Your task to perform on an android device: Empty the shopping cart on target.com. Add "logitech g pro" to the cart on target.com Image 0: 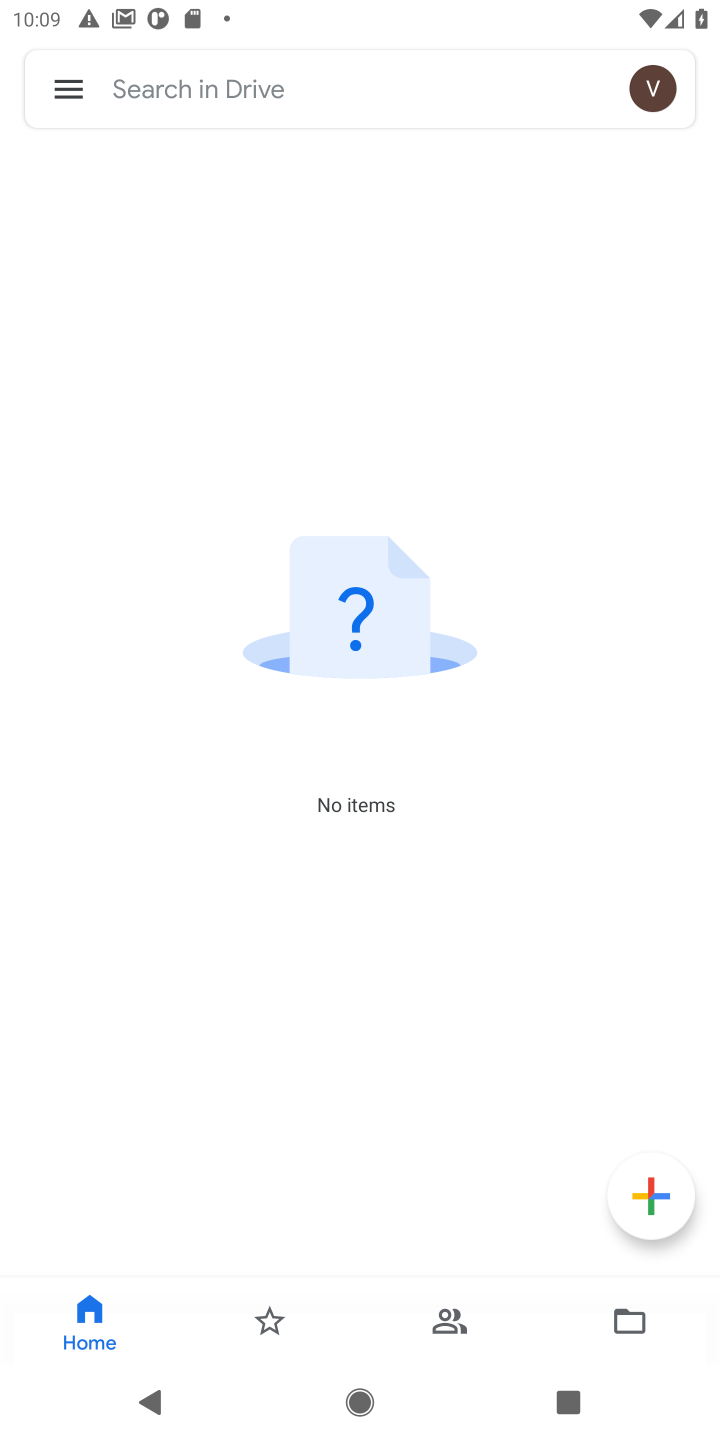
Step 0: press home button
Your task to perform on an android device: Empty the shopping cart on target.com. Add "logitech g pro" to the cart on target.com Image 1: 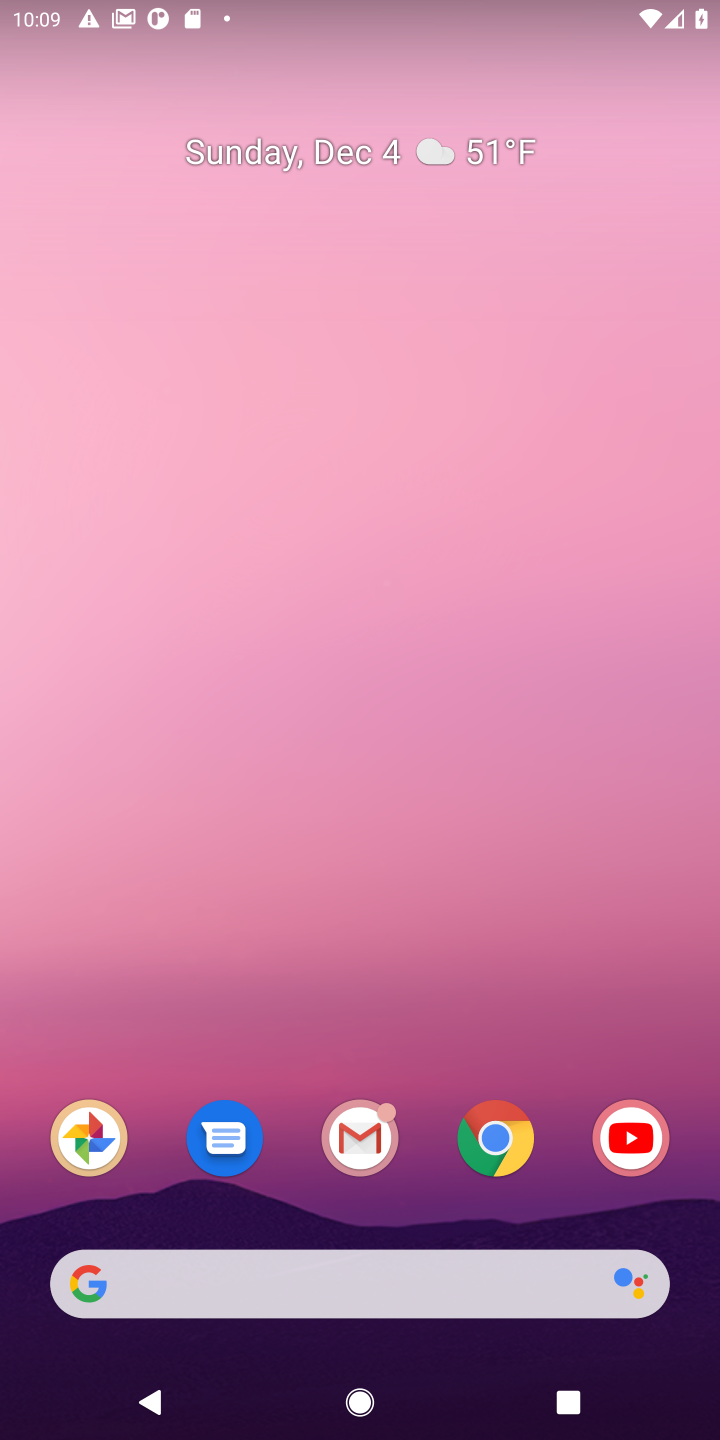
Step 1: click (485, 1137)
Your task to perform on an android device: Empty the shopping cart on target.com. Add "logitech g pro" to the cart on target.com Image 2: 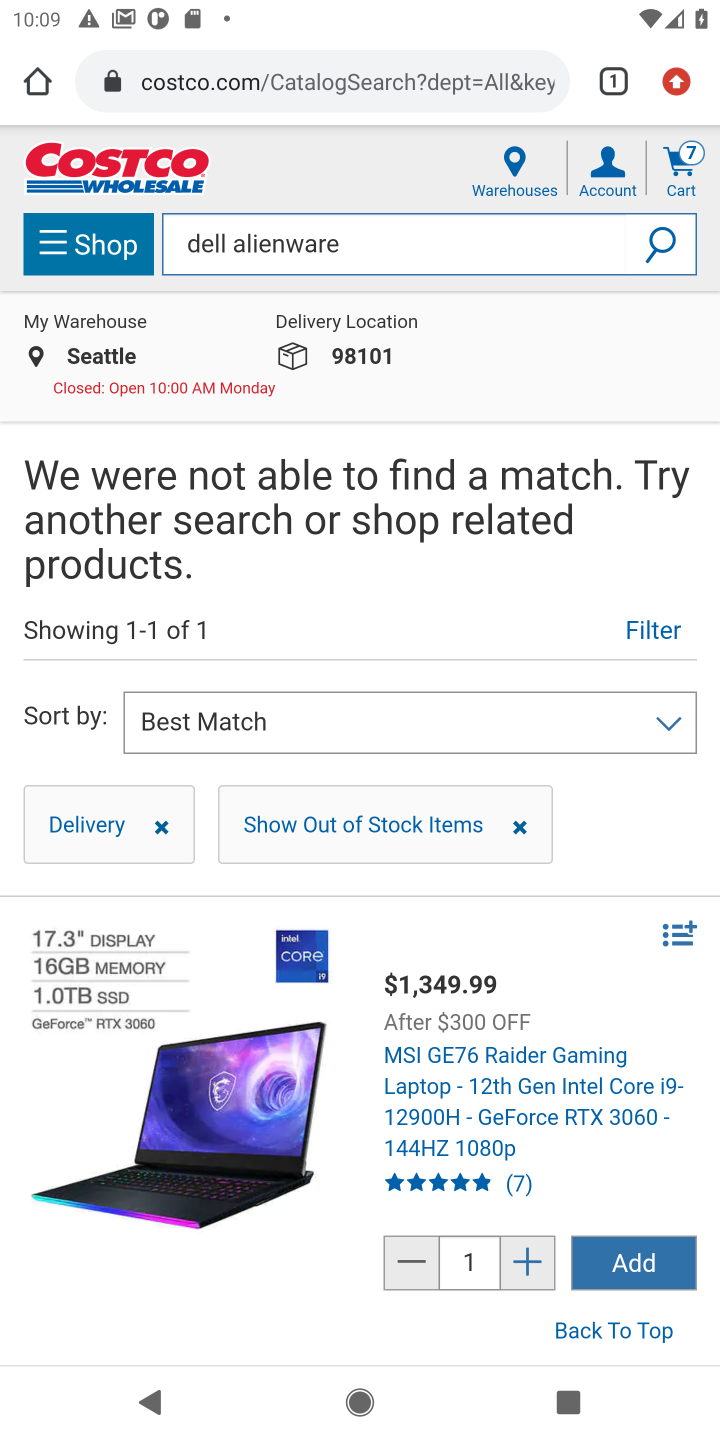
Step 2: click (458, 79)
Your task to perform on an android device: Empty the shopping cart on target.com. Add "logitech g pro" to the cart on target.com Image 3: 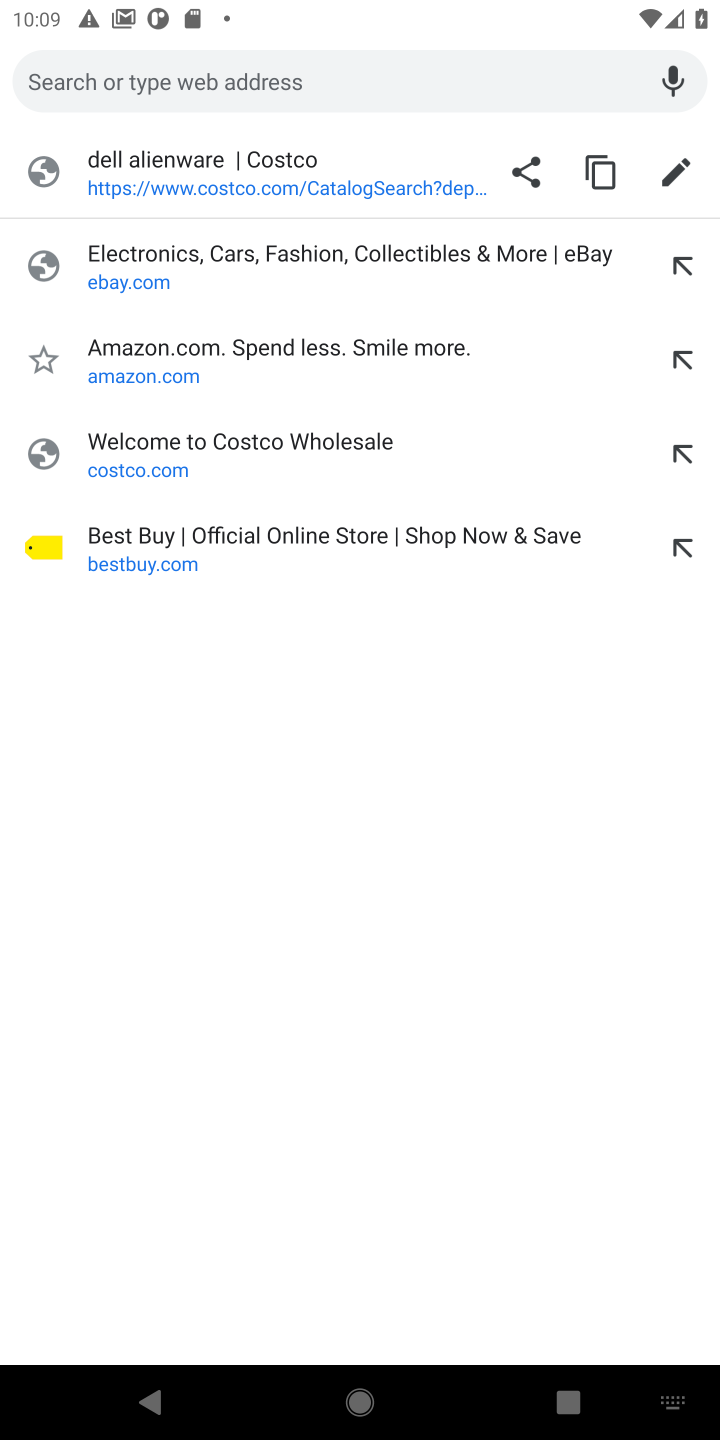
Step 3: type "target.com"
Your task to perform on an android device: Empty the shopping cart on target.com. Add "logitech g pro" to the cart on target.com Image 4: 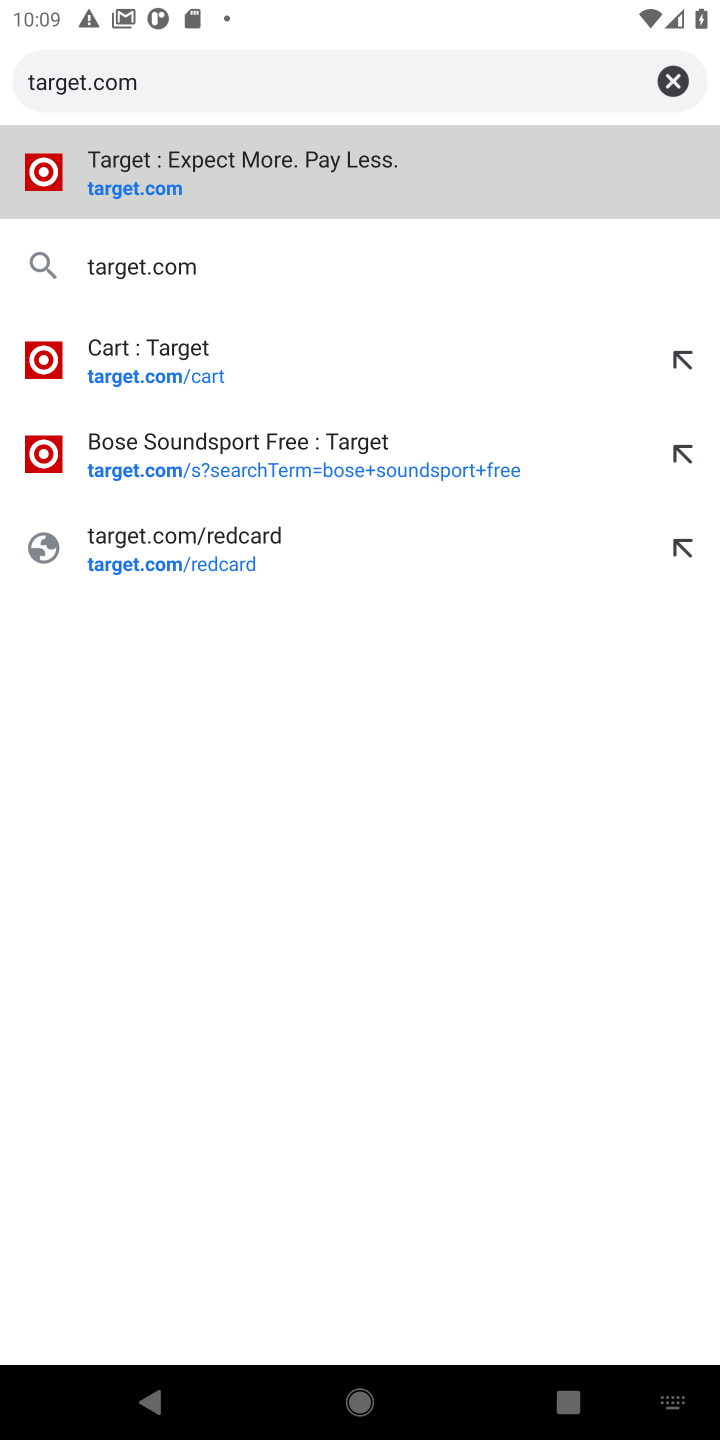
Step 4: press enter
Your task to perform on an android device: Empty the shopping cart on target.com. Add "logitech g pro" to the cart on target.com Image 5: 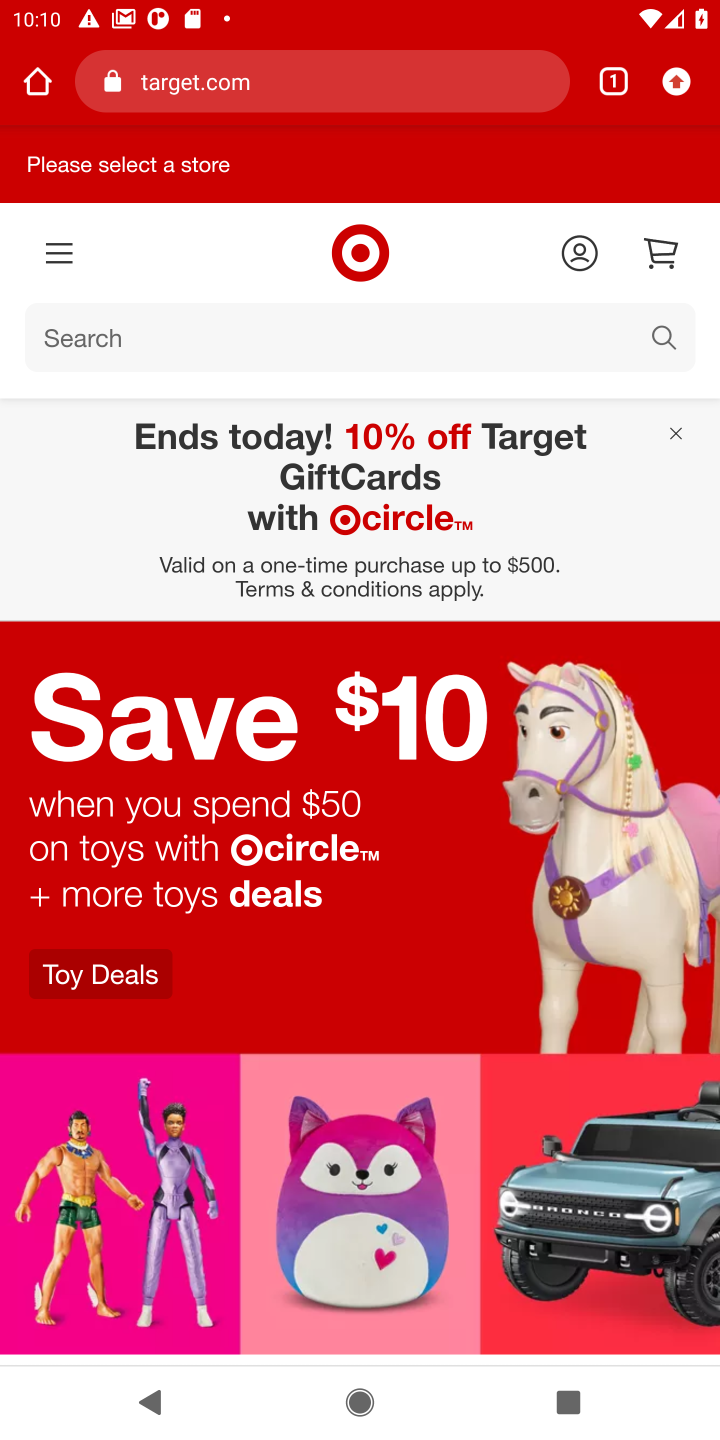
Step 5: click (667, 336)
Your task to perform on an android device: Empty the shopping cart on target.com. Add "logitech g pro" to the cart on target.com Image 6: 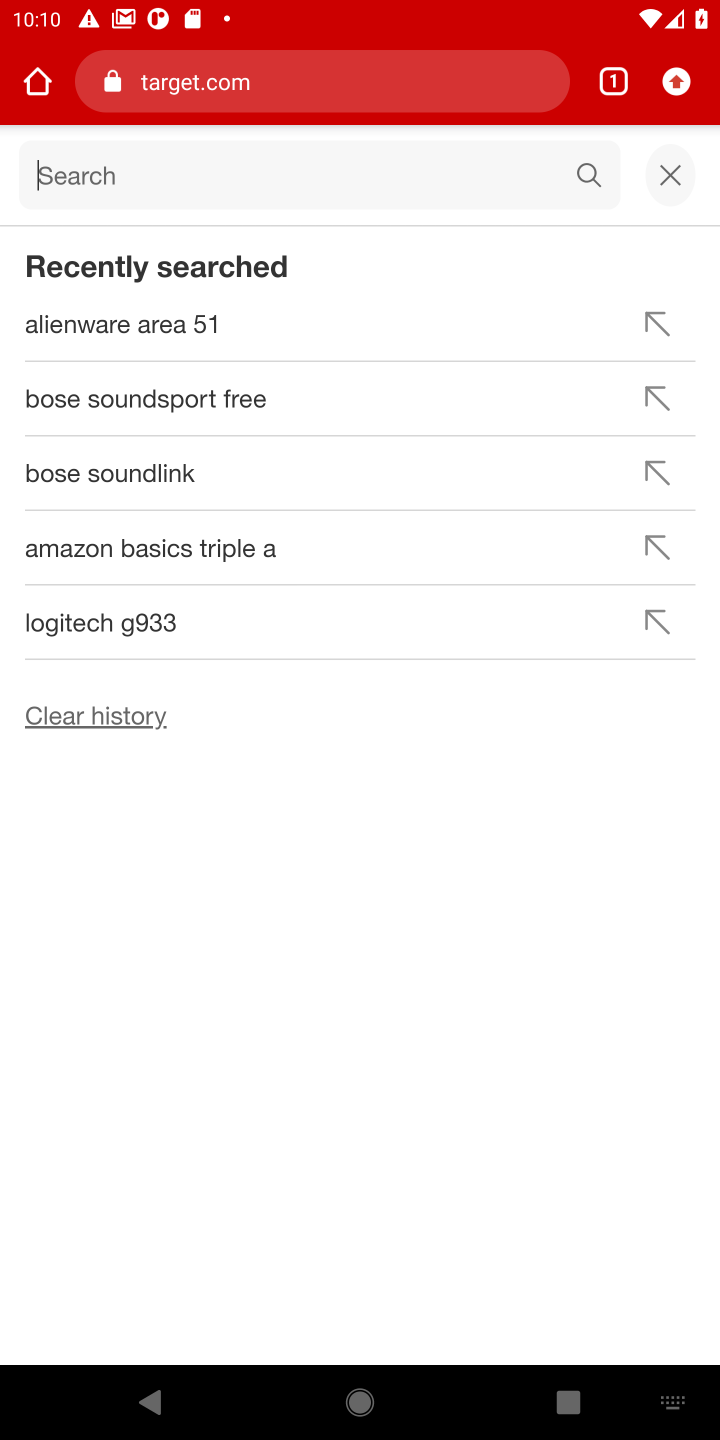
Step 6: press enter
Your task to perform on an android device: Empty the shopping cart on target.com. Add "logitech g pro" to the cart on target.com Image 7: 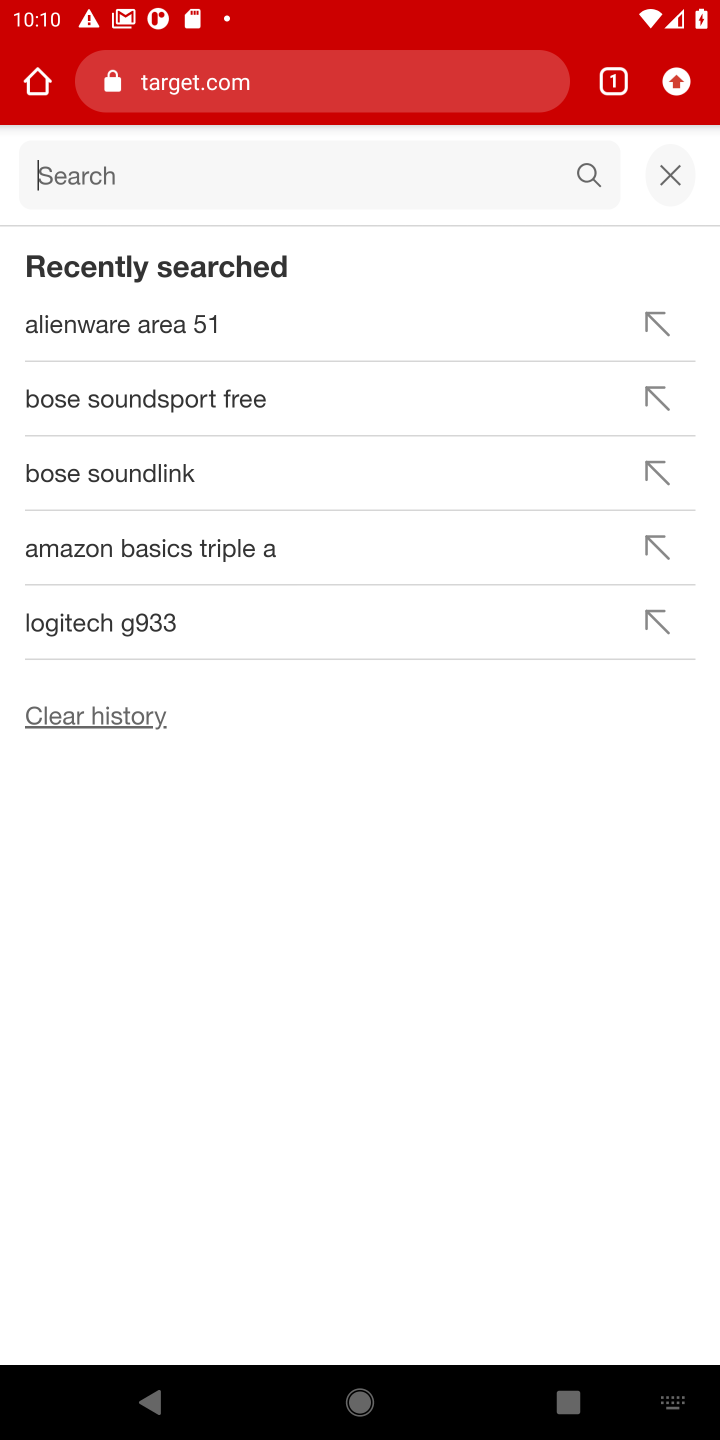
Step 7: type "logitech g pro"
Your task to perform on an android device: Empty the shopping cart on target.com. Add "logitech g pro" to the cart on target.com Image 8: 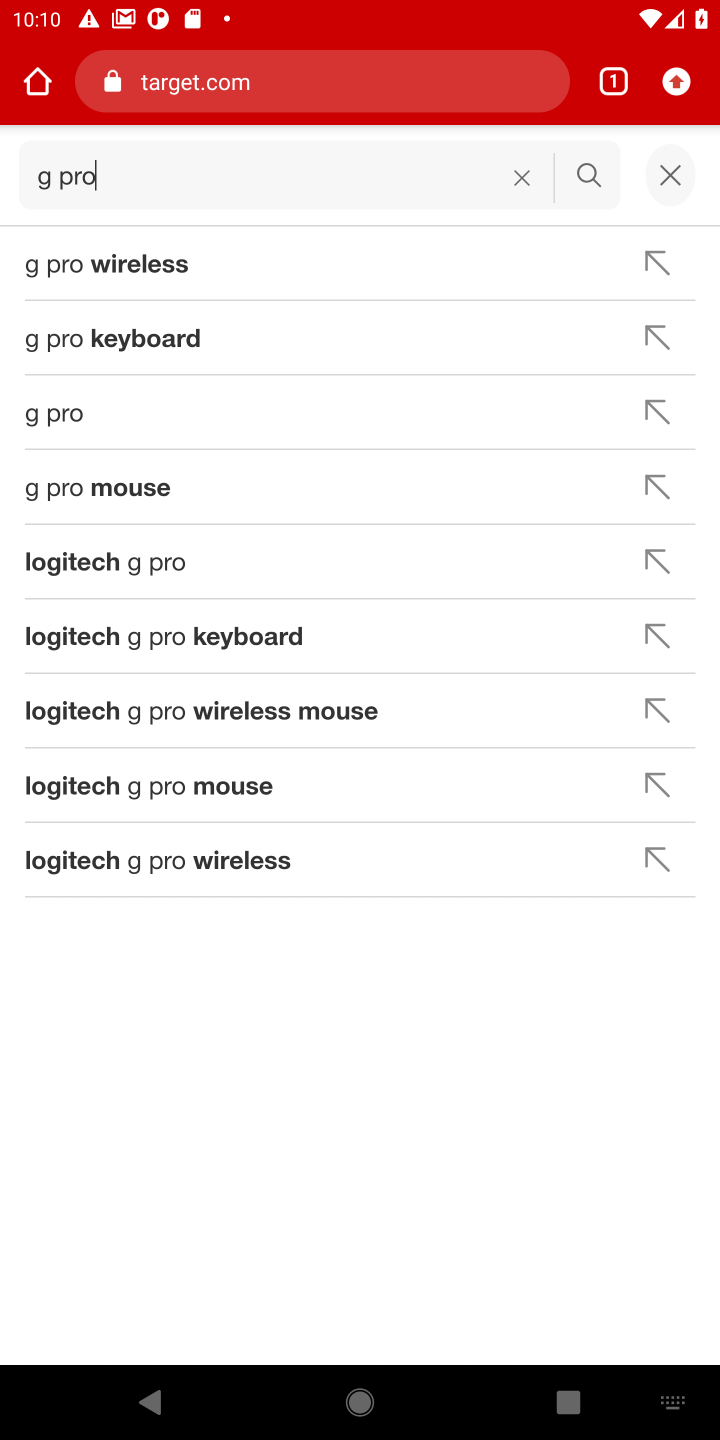
Step 8: click (522, 183)
Your task to perform on an android device: Empty the shopping cart on target.com. Add "logitech g pro" to the cart on target.com Image 9: 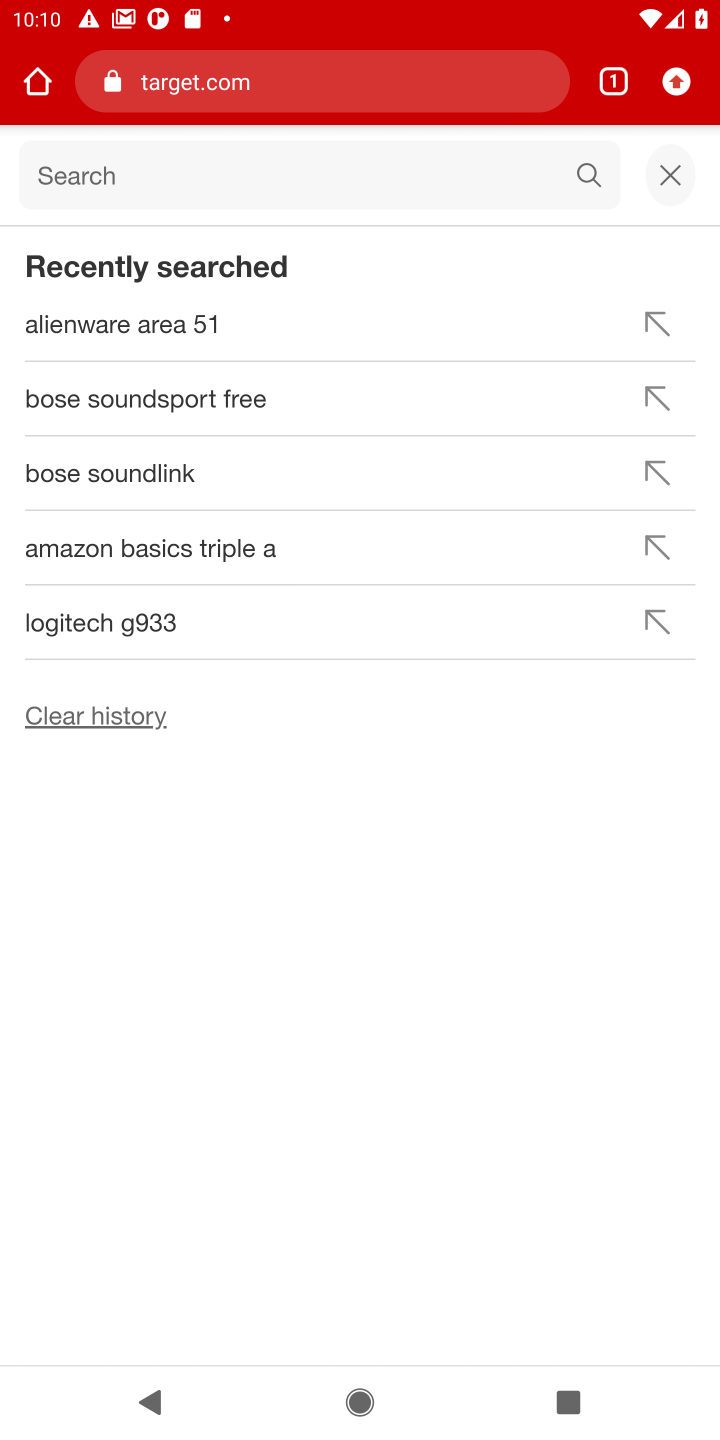
Step 9: click (248, 183)
Your task to perform on an android device: Empty the shopping cart on target.com. Add "logitech g pro" to the cart on target.com Image 10: 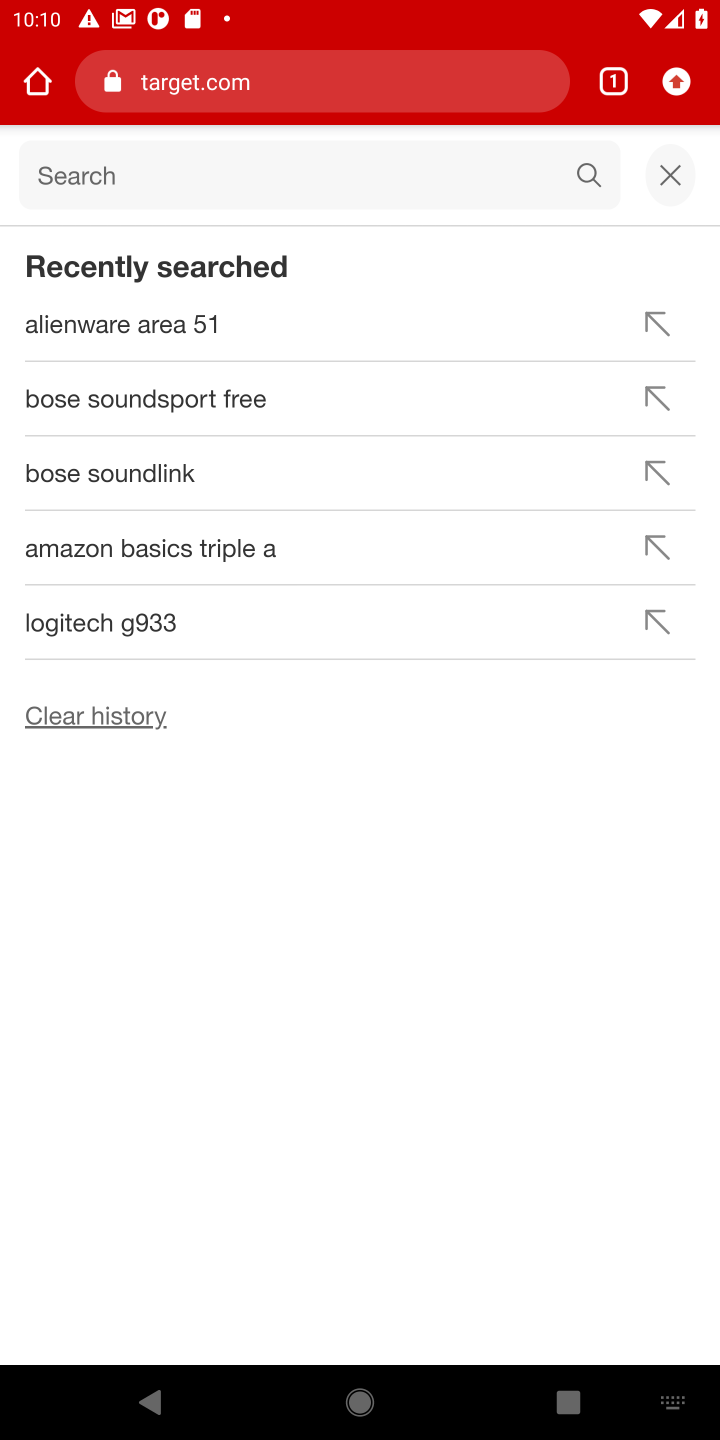
Step 10: type "logitech g pro"
Your task to perform on an android device: Empty the shopping cart on target.com. Add "logitech g pro" to the cart on target.com Image 11: 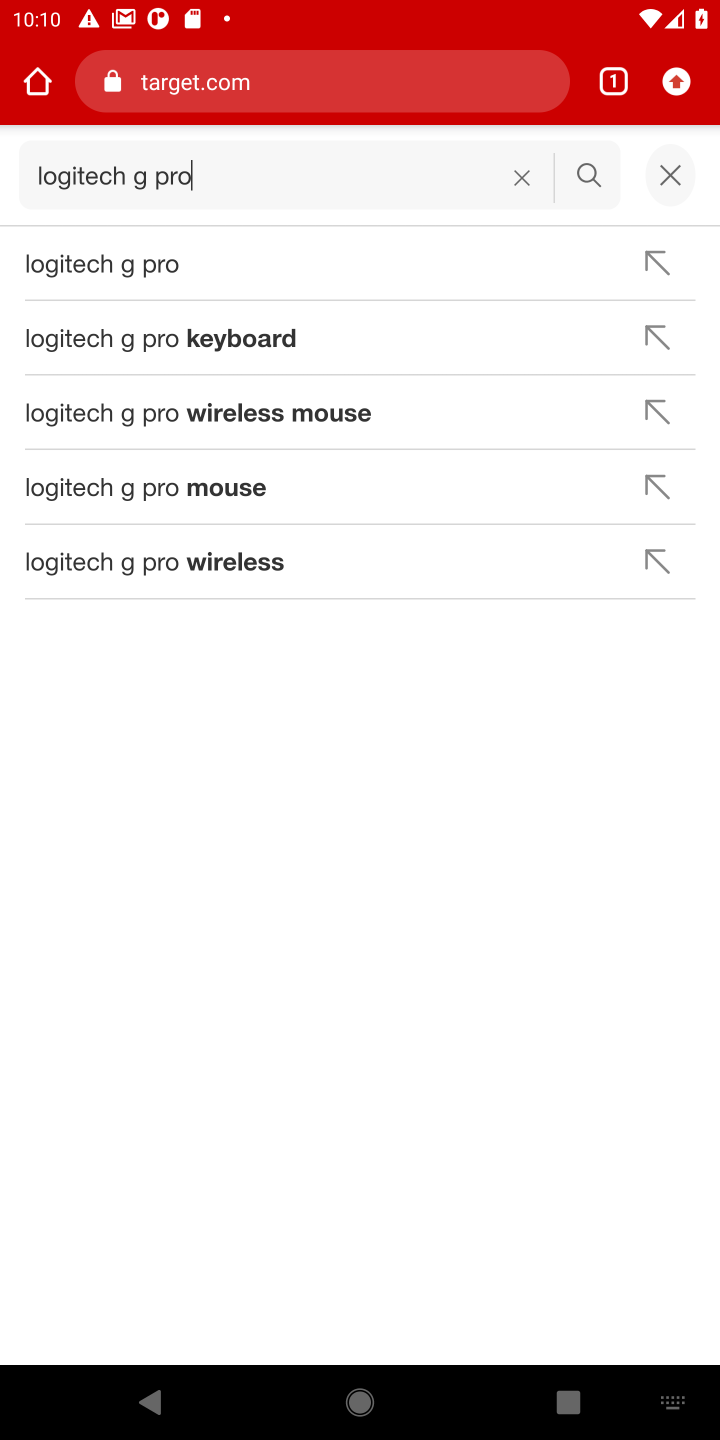
Step 11: press enter
Your task to perform on an android device: Empty the shopping cart on target.com. Add "logitech g pro" to the cart on target.com Image 12: 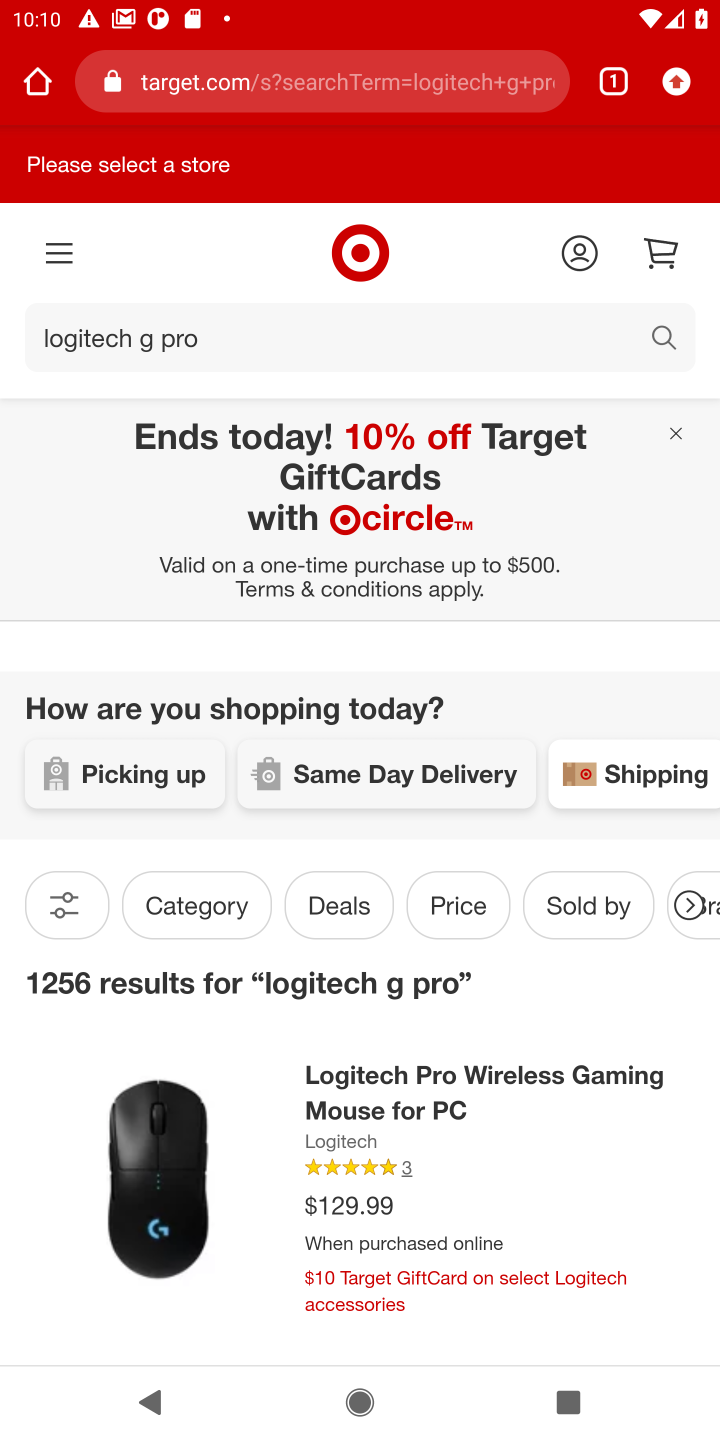
Step 12: task complete